Your task to perform on an android device: Open sound settings Image 0: 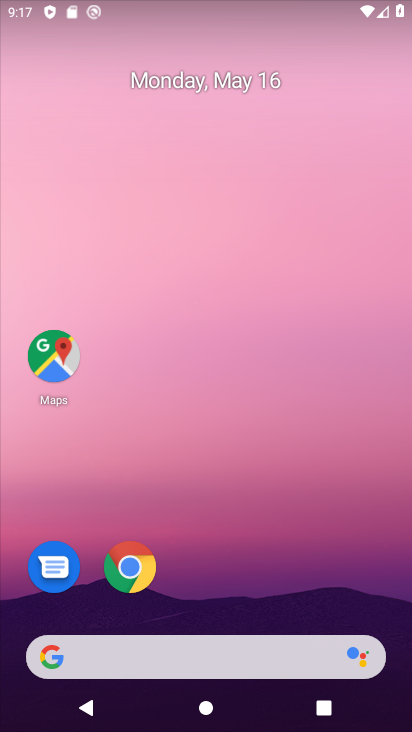
Step 0: drag from (239, 569) to (176, 146)
Your task to perform on an android device: Open sound settings Image 1: 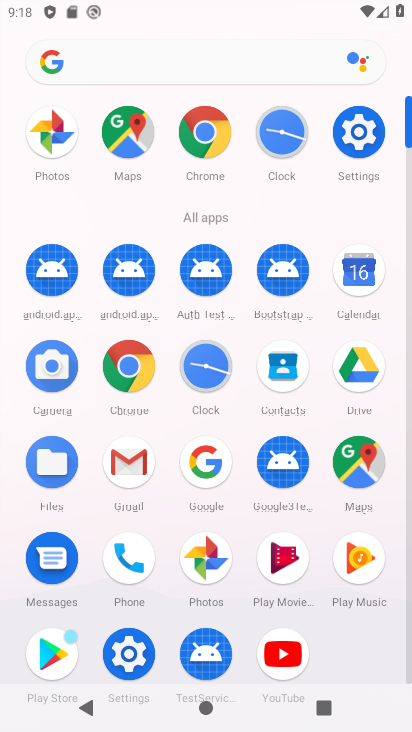
Step 1: click (356, 124)
Your task to perform on an android device: Open sound settings Image 2: 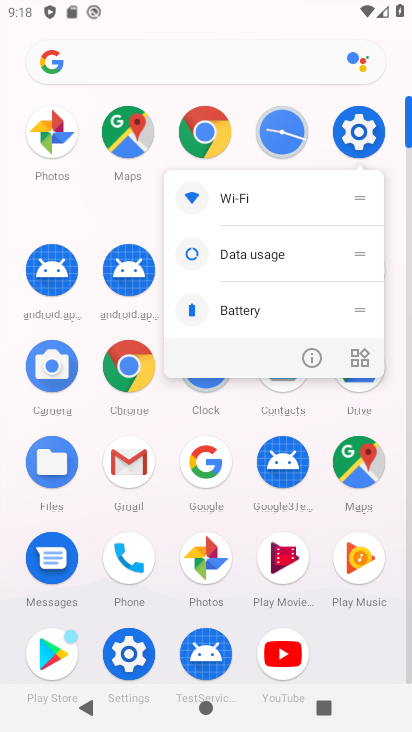
Step 2: click (353, 133)
Your task to perform on an android device: Open sound settings Image 3: 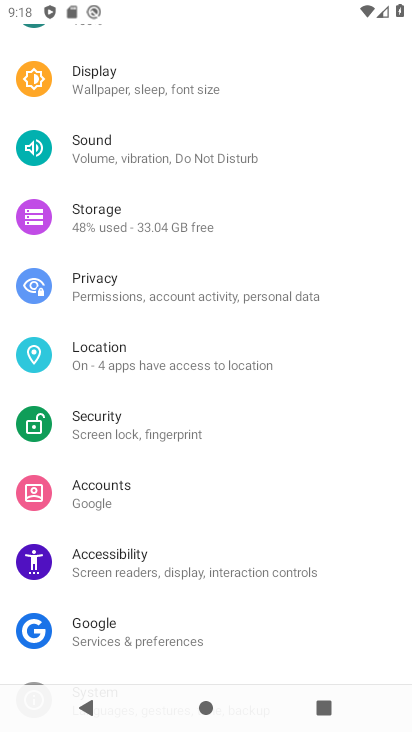
Step 3: click (122, 149)
Your task to perform on an android device: Open sound settings Image 4: 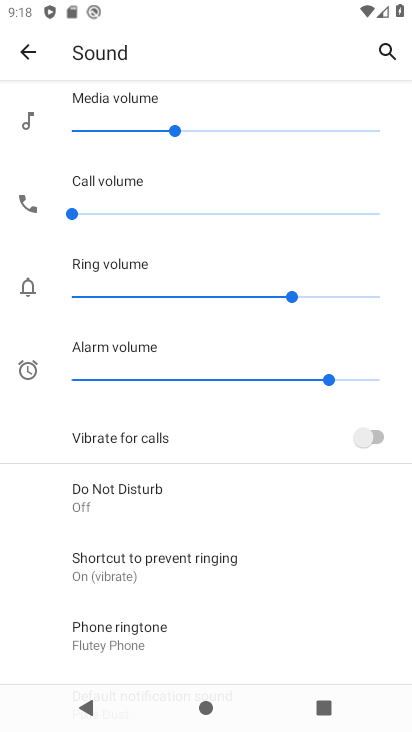
Step 4: task complete